Your task to perform on an android device: Open the map Image 0: 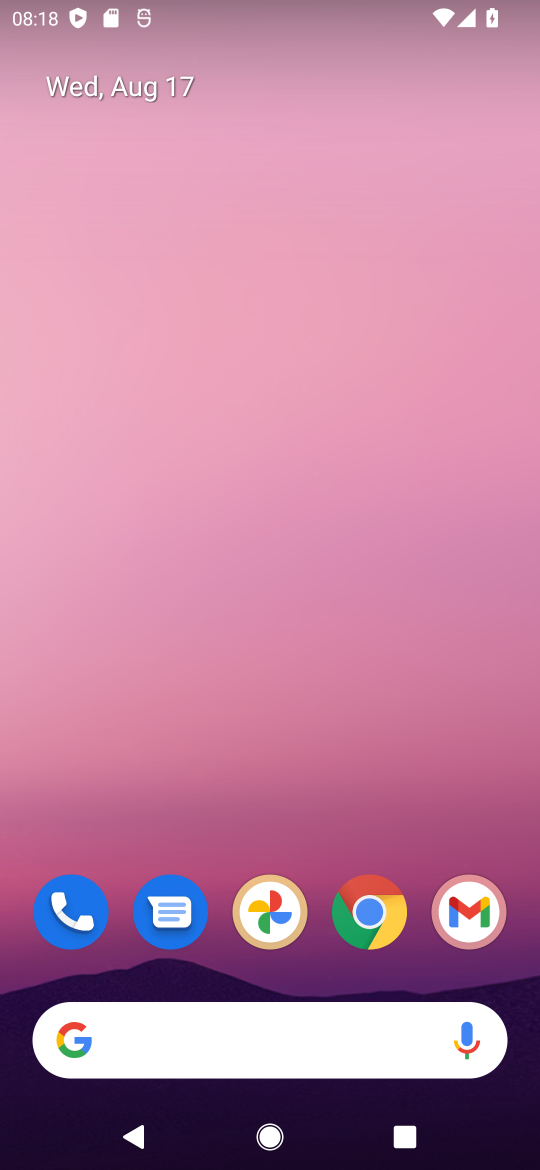
Step 0: click (490, 926)
Your task to perform on an android device: Open the map Image 1: 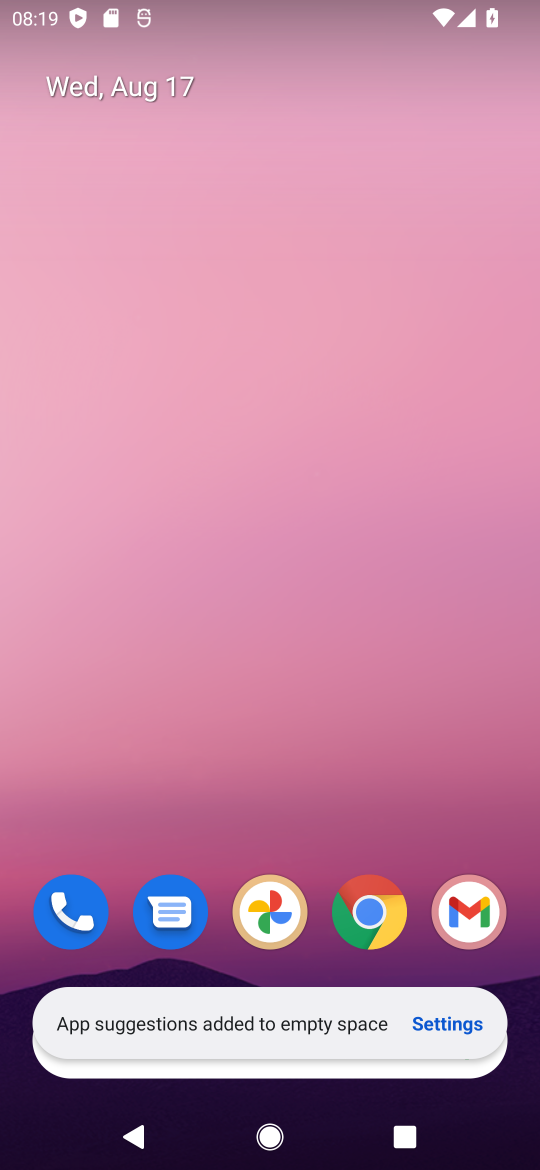
Step 1: click (484, 918)
Your task to perform on an android device: Open the map Image 2: 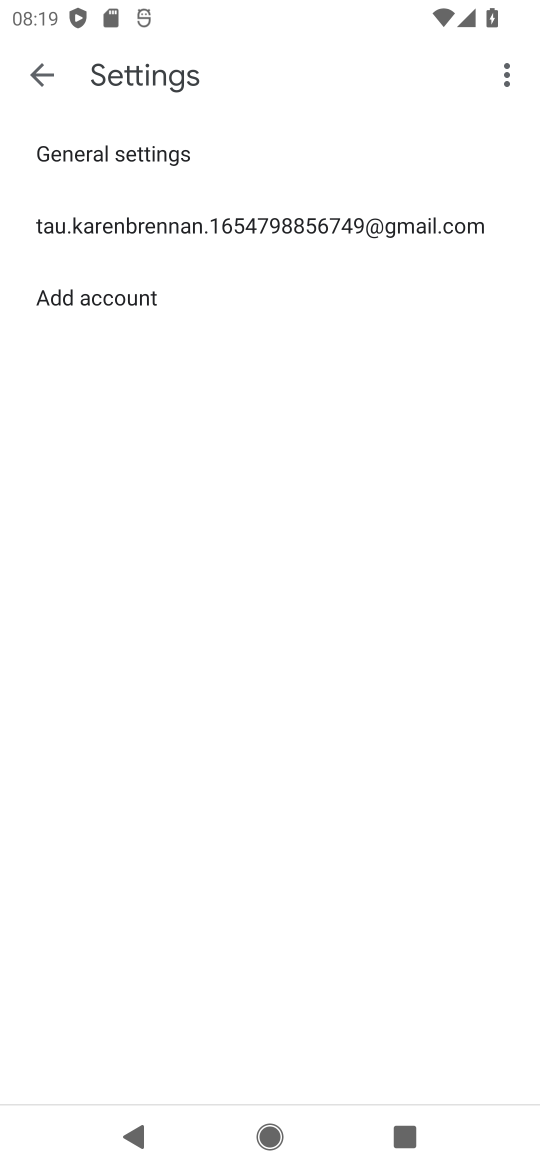
Step 2: click (124, 231)
Your task to perform on an android device: Open the map Image 3: 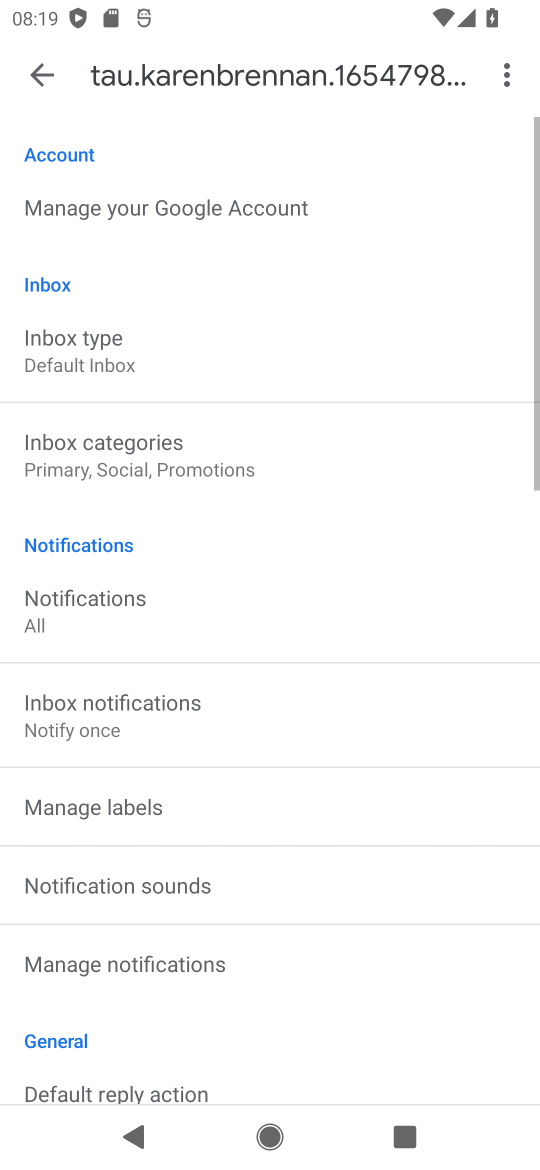
Step 3: click (92, 356)
Your task to perform on an android device: Open the map Image 4: 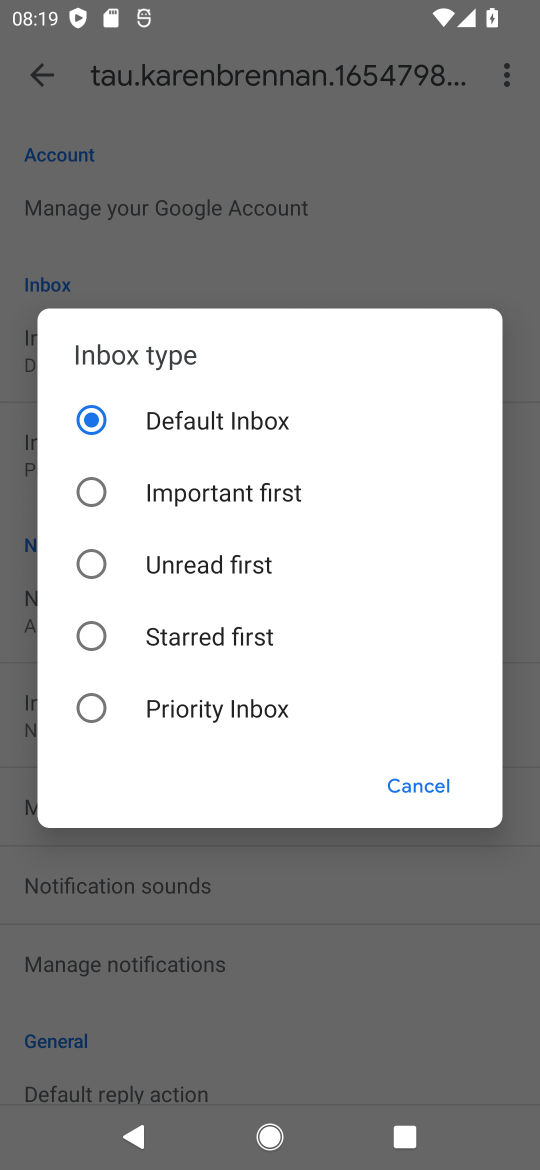
Step 4: click (124, 428)
Your task to perform on an android device: Open the map Image 5: 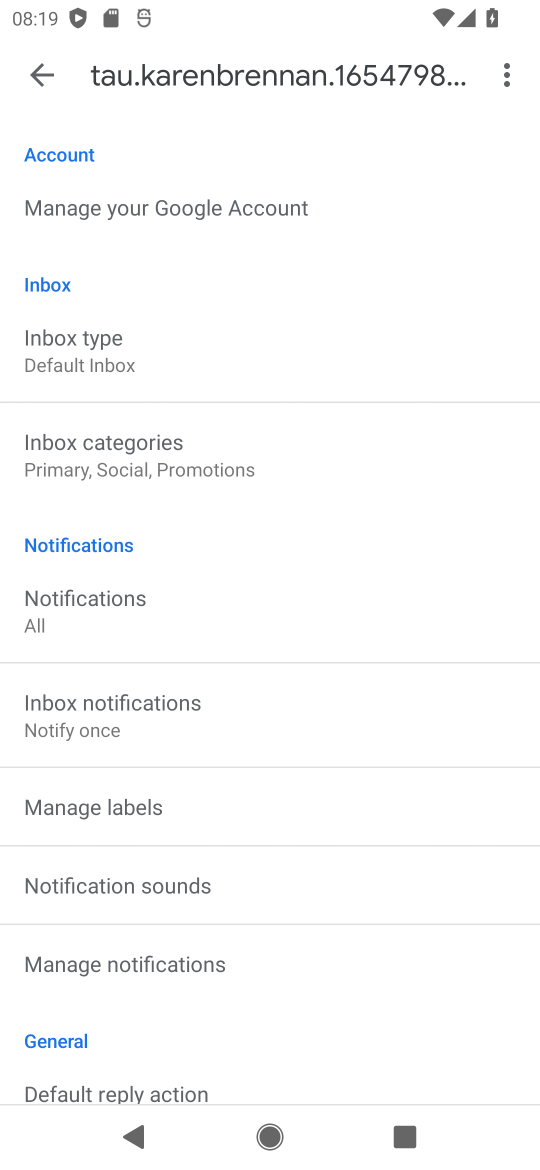
Step 5: click (97, 468)
Your task to perform on an android device: Open the map Image 6: 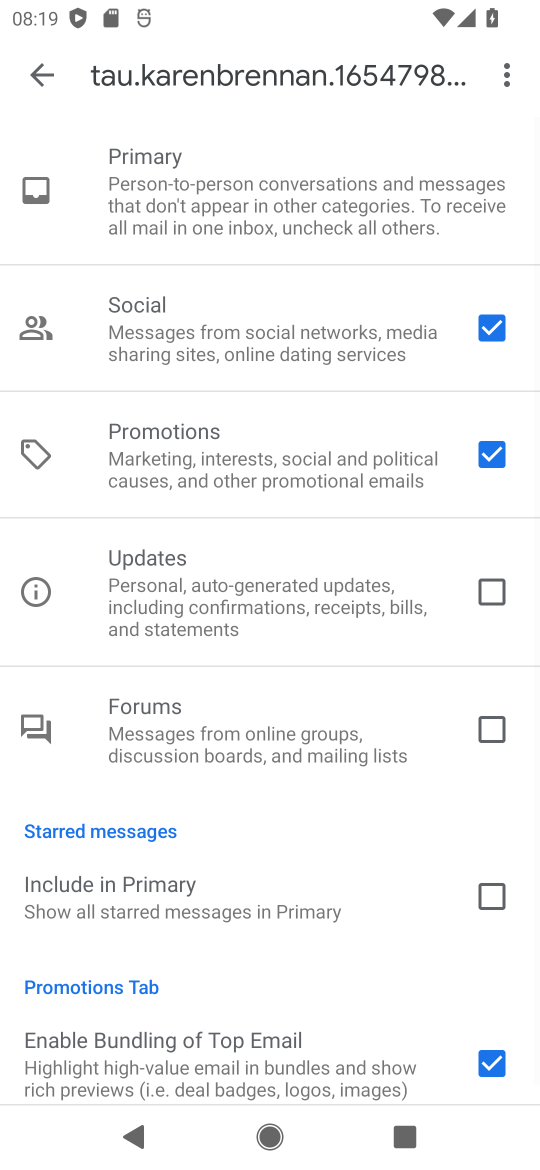
Step 6: click (486, 447)
Your task to perform on an android device: Open the map Image 7: 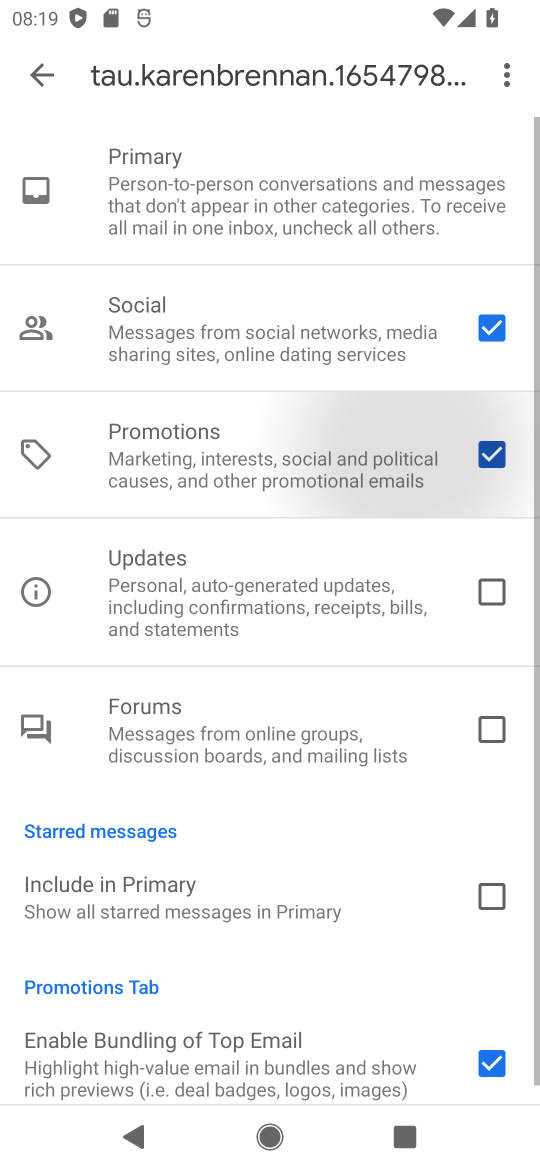
Step 7: click (497, 338)
Your task to perform on an android device: Open the map Image 8: 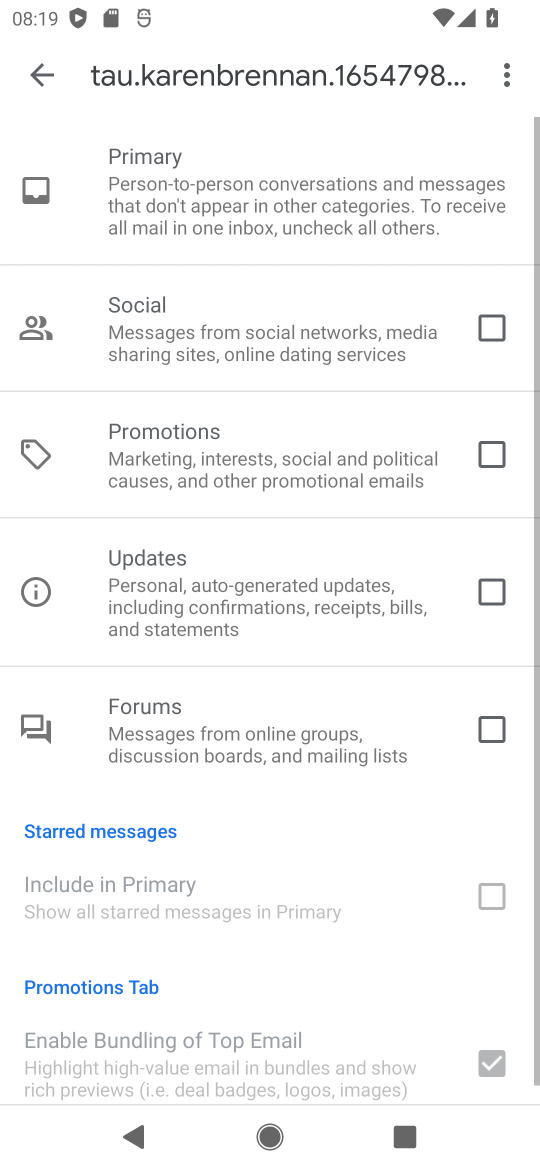
Step 8: click (35, 64)
Your task to perform on an android device: Open the map Image 9: 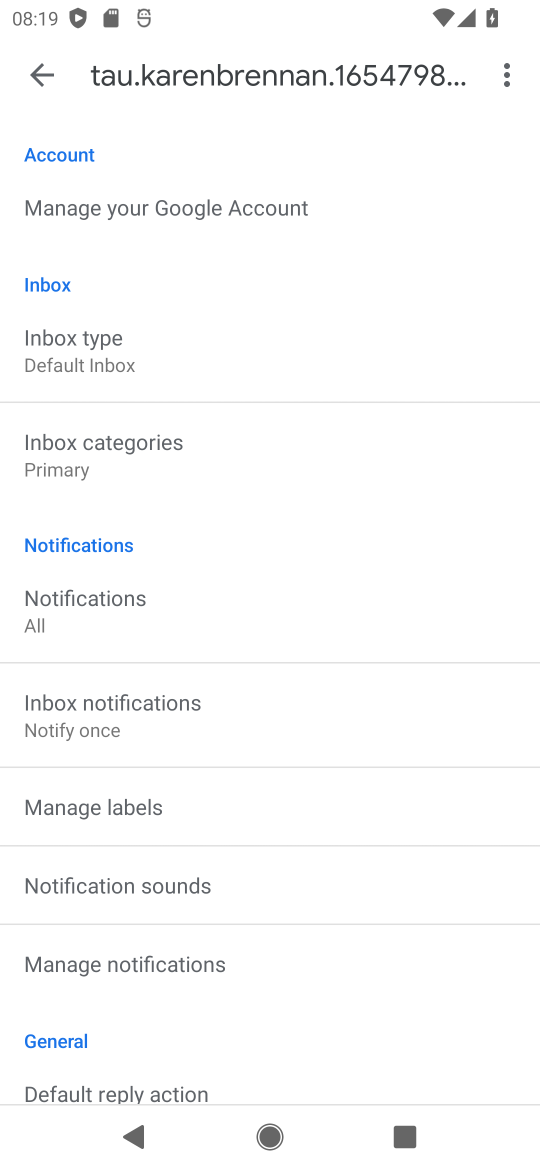
Step 9: task complete